Your task to perform on an android device: Open battery settings Image 0: 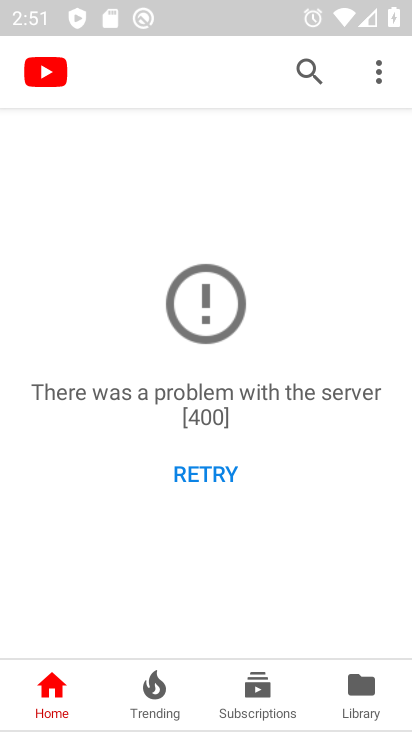
Step 0: press home button
Your task to perform on an android device: Open battery settings Image 1: 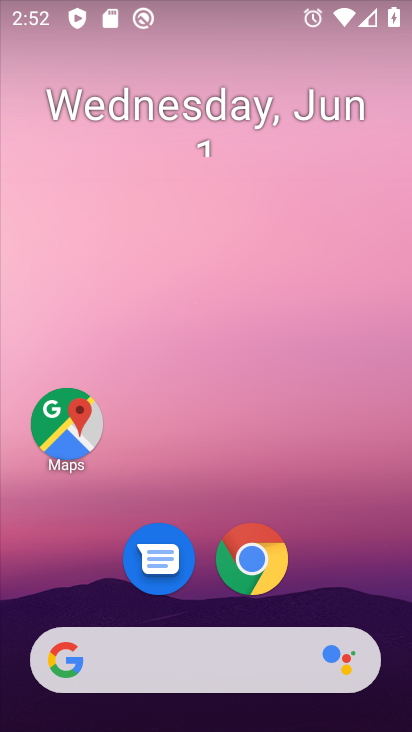
Step 1: drag from (321, 602) to (340, 56)
Your task to perform on an android device: Open battery settings Image 2: 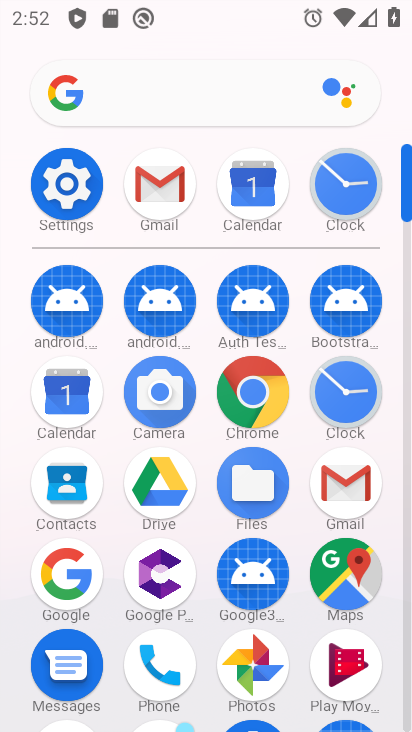
Step 2: click (59, 187)
Your task to perform on an android device: Open battery settings Image 3: 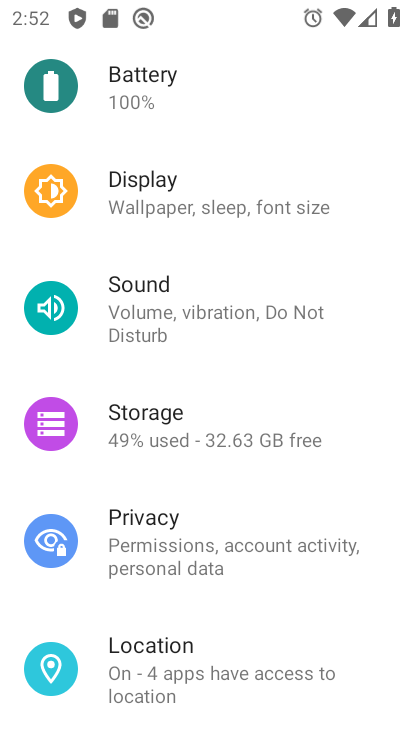
Step 3: click (167, 83)
Your task to perform on an android device: Open battery settings Image 4: 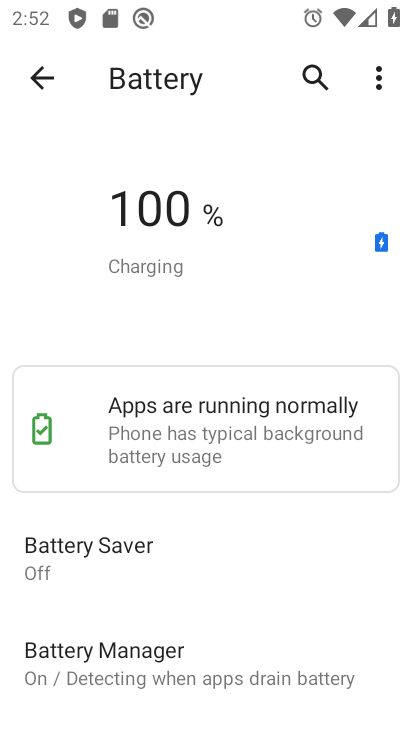
Step 4: task complete